Your task to perform on an android device: Open my contact list Image 0: 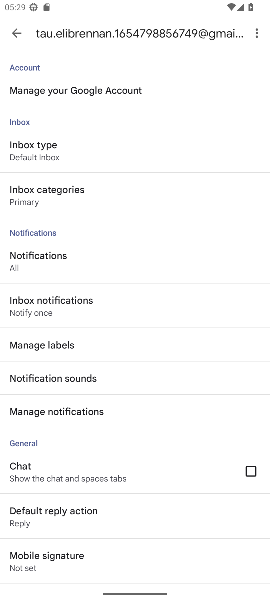
Step 0: press home button
Your task to perform on an android device: Open my contact list Image 1: 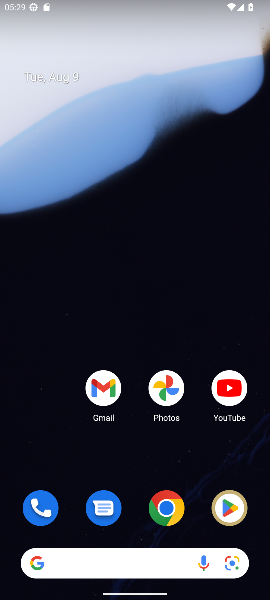
Step 1: drag from (123, 449) to (180, 18)
Your task to perform on an android device: Open my contact list Image 2: 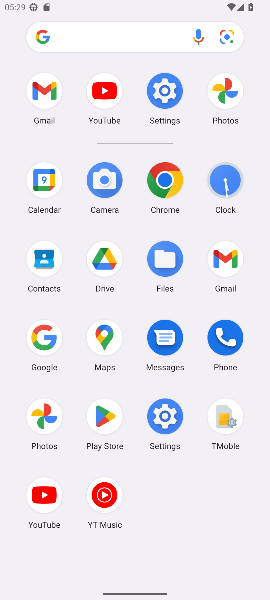
Step 2: click (39, 262)
Your task to perform on an android device: Open my contact list Image 3: 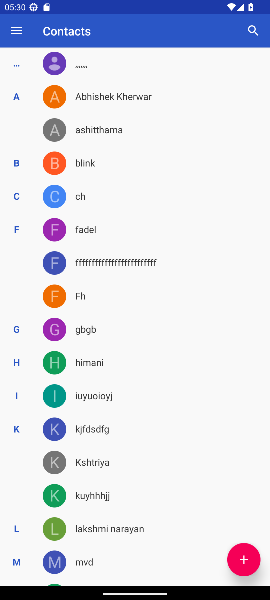
Step 3: task complete